Your task to perform on an android device: turn smart compose on in the gmail app Image 0: 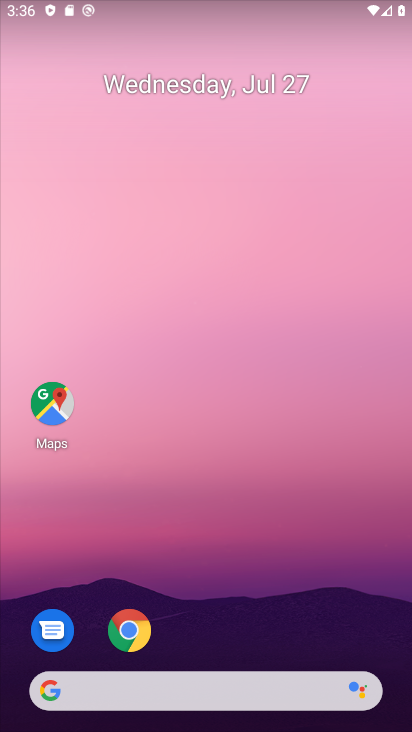
Step 0: drag from (221, 445) to (270, 65)
Your task to perform on an android device: turn smart compose on in the gmail app Image 1: 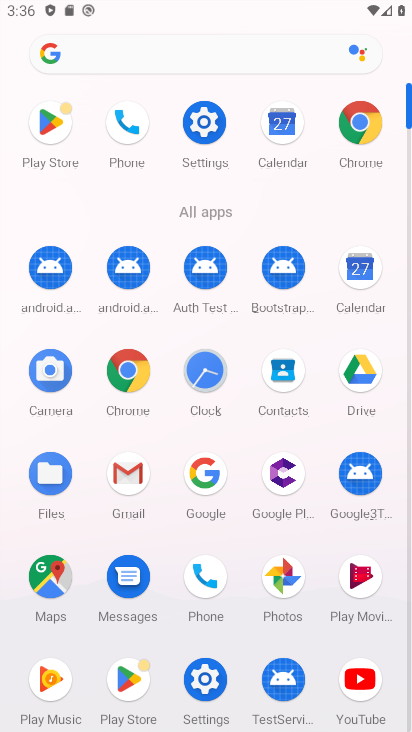
Step 1: click (131, 463)
Your task to perform on an android device: turn smart compose on in the gmail app Image 2: 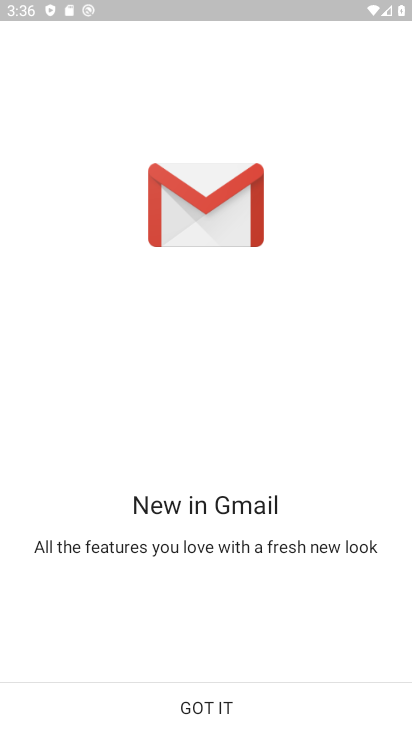
Step 2: click (218, 698)
Your task to perform on an android device: turn smart compose on in the gmail app Image 3: 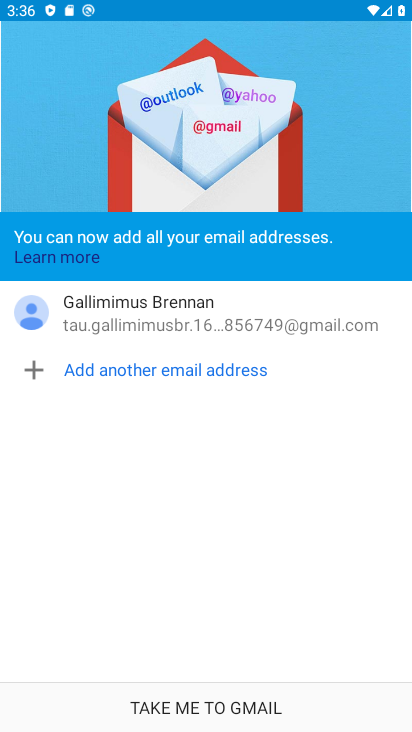
Step 3: click (218, 698)
Your task to perform on an android device: turn smart compose on in the gmail app Image 4: 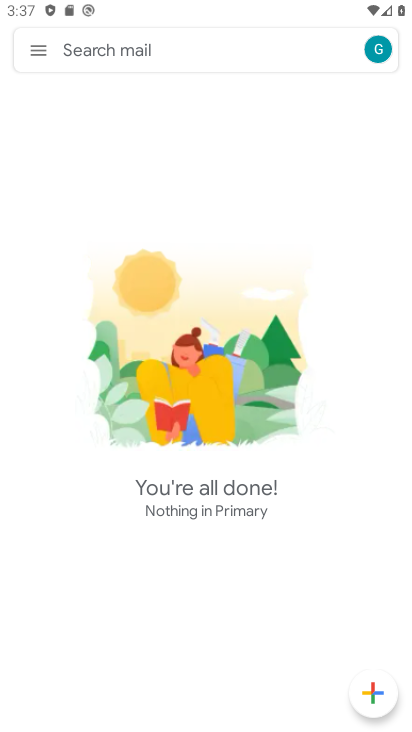
Step 4: click (36, 45)
Your task to perform on an android device: turn smart compose on in the gmail app Image 5: 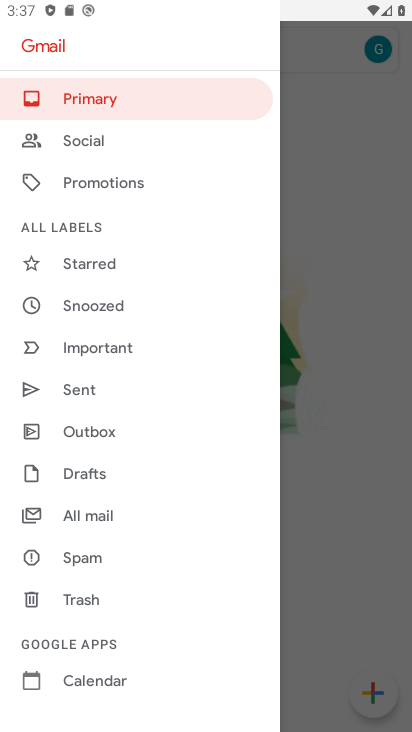
Step 5: drag from (115, 665) to (186, 100)
Your task to perform on an android device: turn smart compose on in the gmail app Image 6: 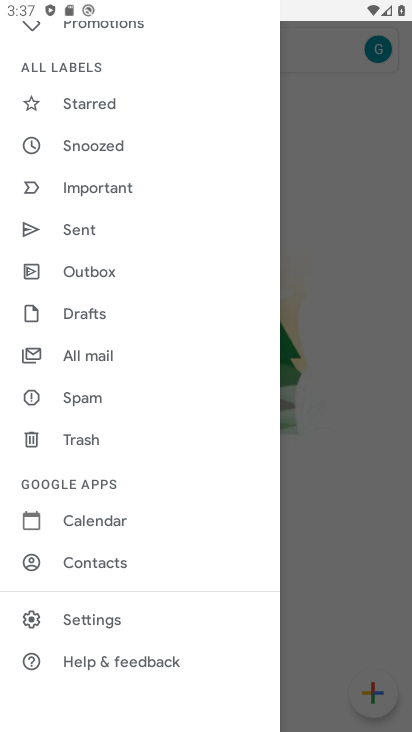
Step 6: click (87, 630)
Your task to perform on an android device: turn smart compose on in the gmail app Image 7: 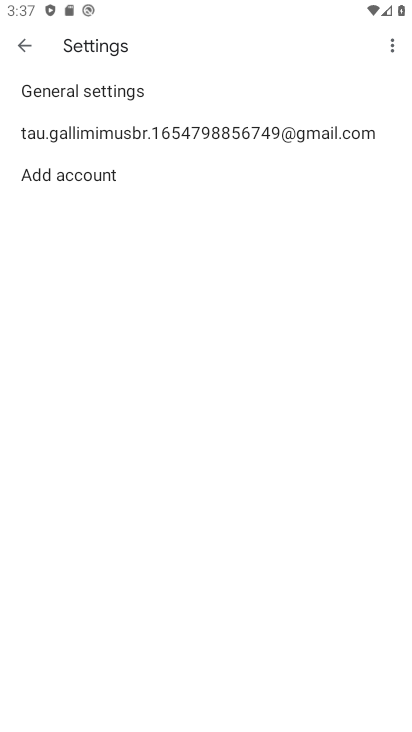
Step 7: click (175, 139)
Your task to perform on an android device: turn smart compose on in the gmail app Image 8: 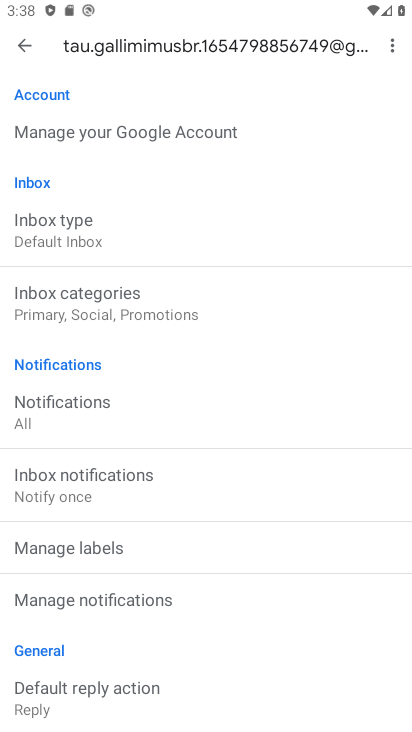
Step 8: task complete